Your task to perform on an android device: Search for vegetarian restaurants on Maps Image 0: 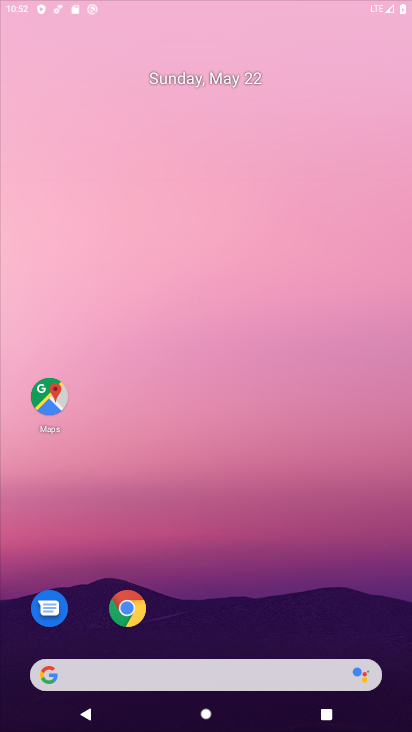
Step 0: click (243, 69)
Your task to perform on an android device: Search for vegetarian restaurants on Maps Image 1: 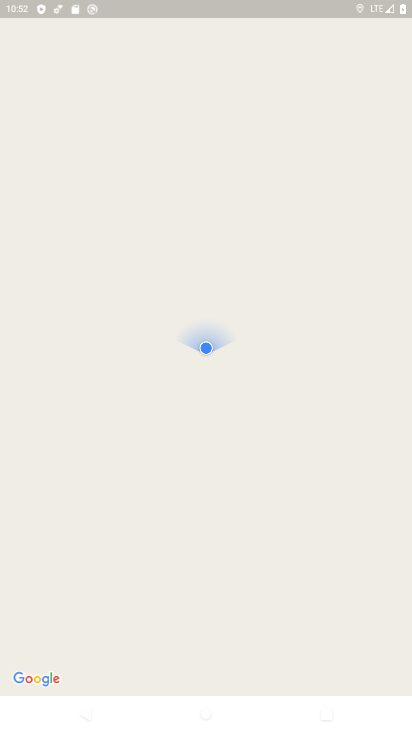
Step 1: click (190, 65)
Your task to perform on an android device: Search for vegetarian restaurants on Maps Image 2: 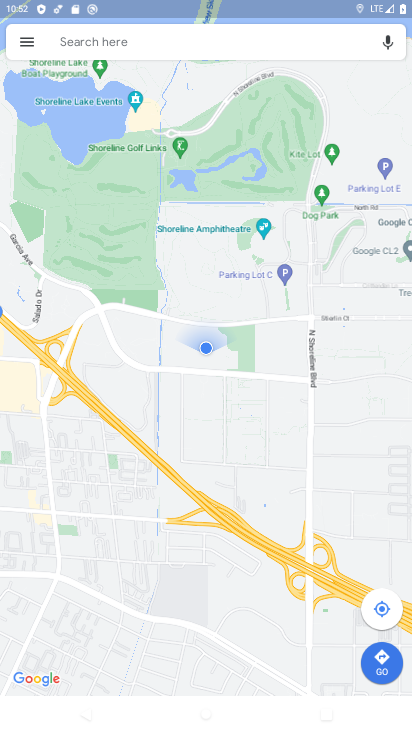
Step 2: click (153, 47)
Your task to perform on an android device: Search for vegetarian restaurants on Maps Image 3: 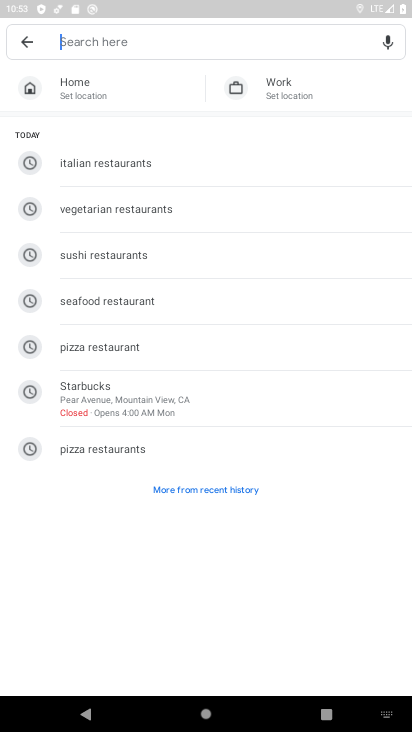
Step 3: type "vegetarian restaurants"
Your task to perform on an android device: Search for vegetarian restaurants on Maps Image 4: 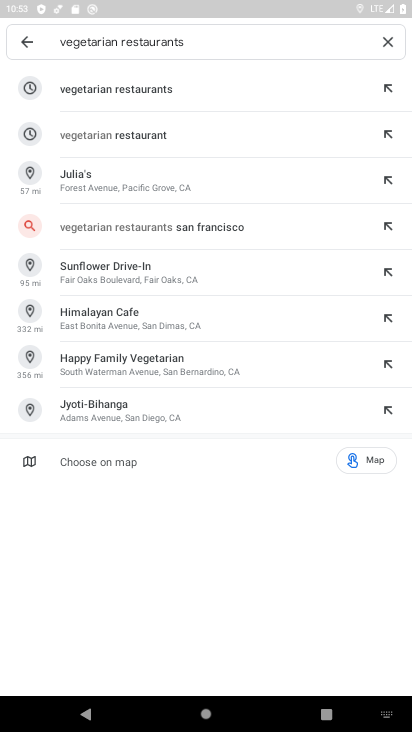
Step 4: click (90, 86)
Your task to perform on an android device: Search for vegetarian restaurants on Maps Image 5: 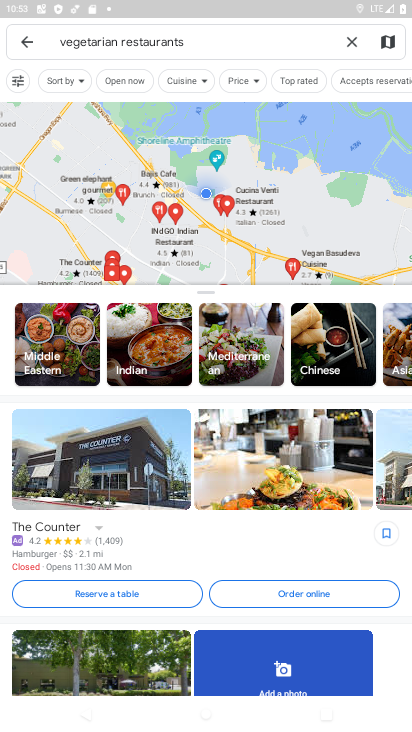
Step 5: task complete